Your task to perform on an android device: Search for macbook air on walmart, select the first entry, add it to the cart, then select checkout. Image 0: 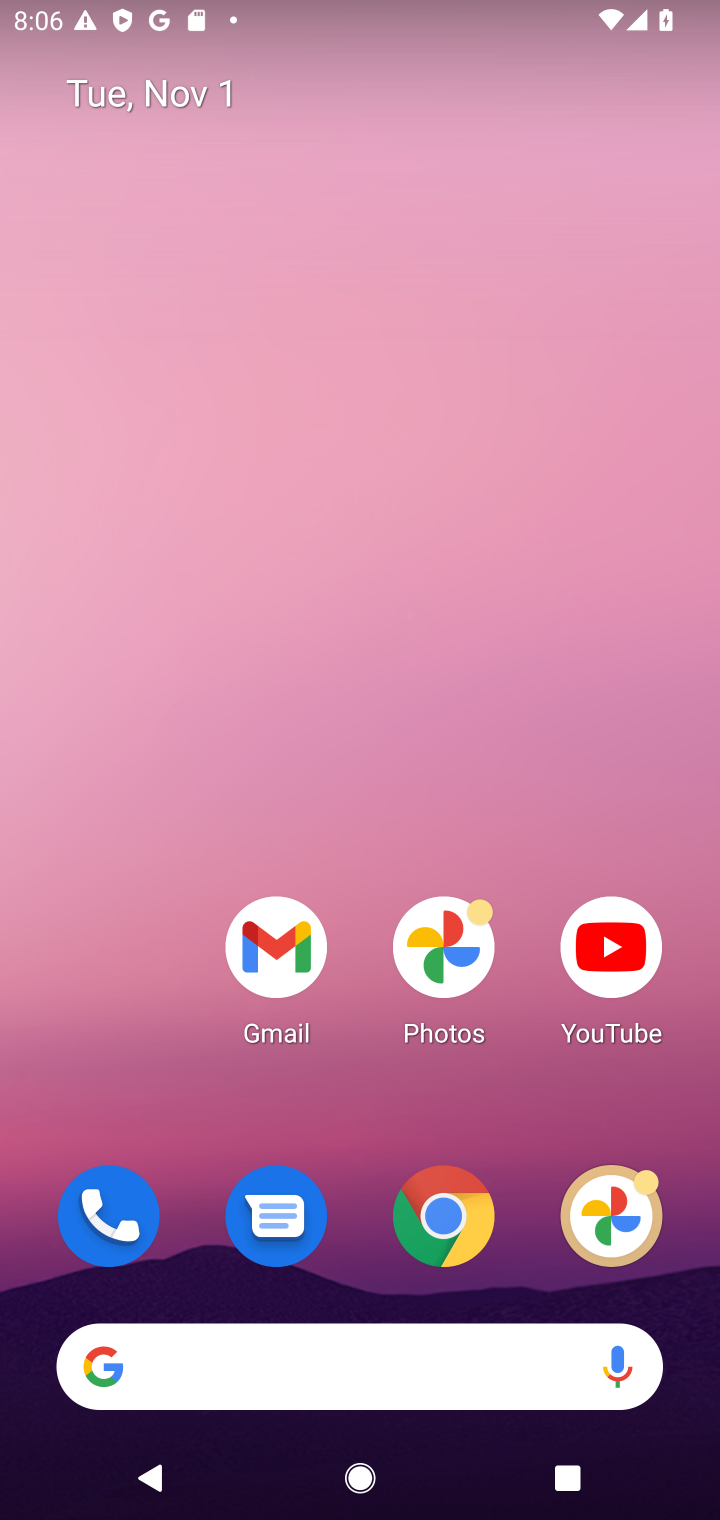
Step 0: click (455, 1210)
Your task to perform on an android device: Search for macbook air on walmart, select the first entry, add it to the cart, then select checkout. Image 1: 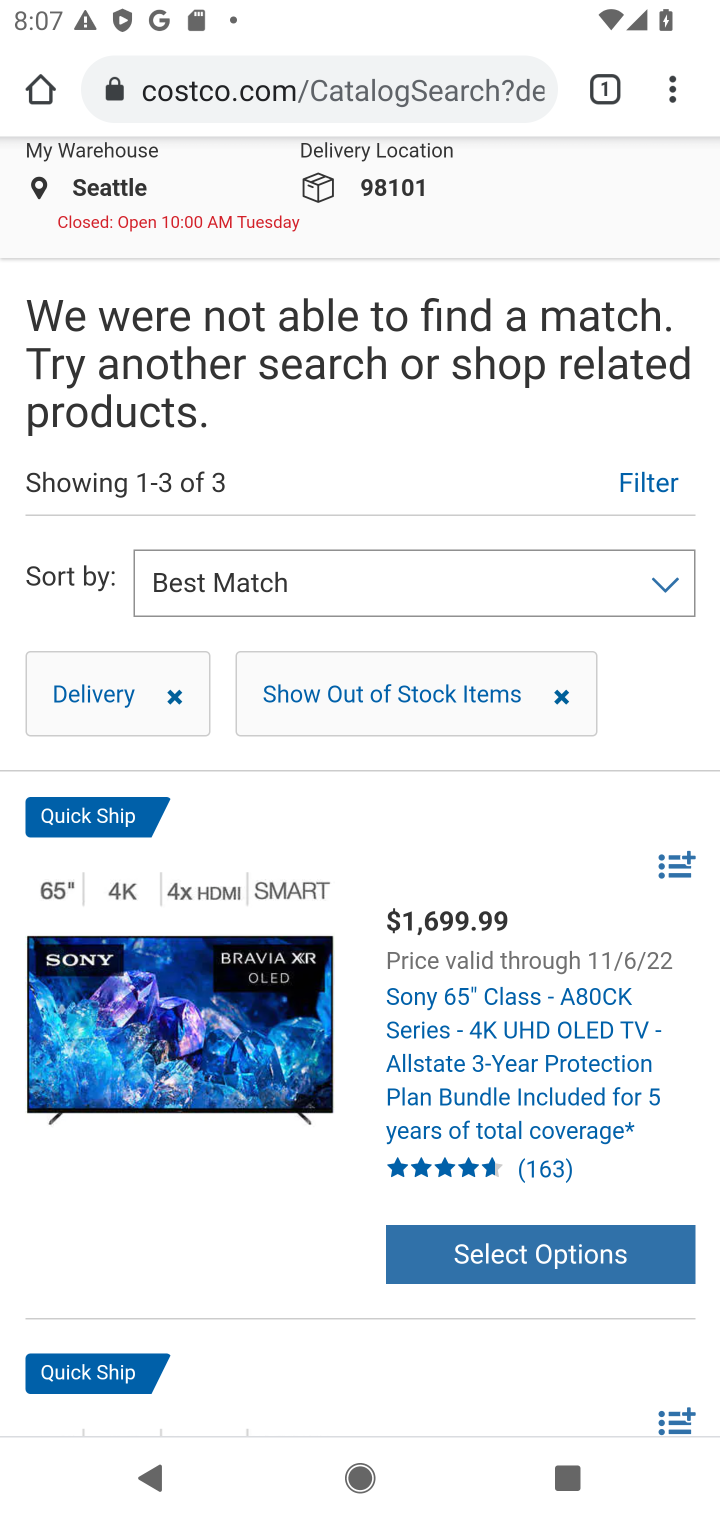
Step 1: click (420, 97)
Your task to perform on an android device: Search for macbook air on walmart, select the first entry, add it to the cart, then select checkout. Image 2: 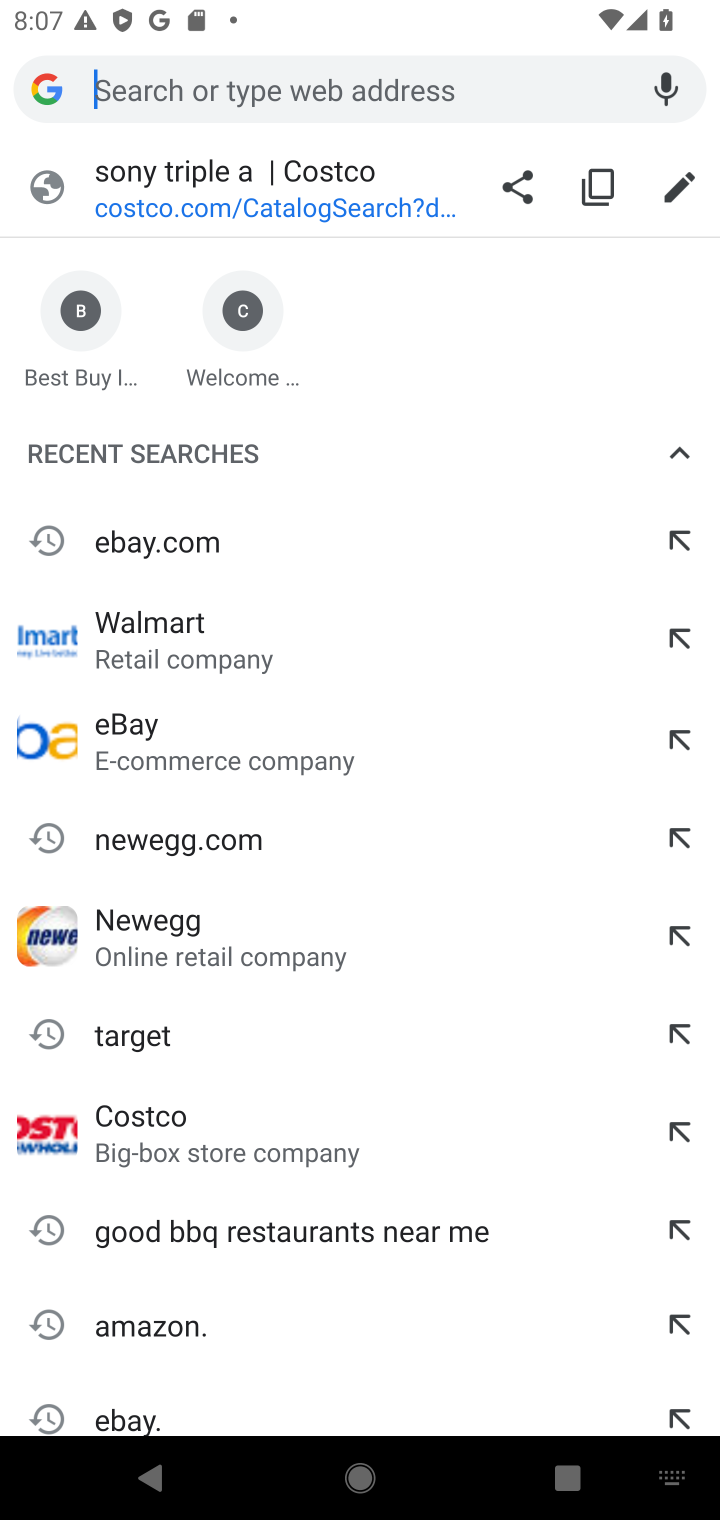
Step 2: type "walmart"
Your task to perform on an android device: Search for macbook air on walmart, select the first entry, add it to the cart, then select checkout. Image 3: 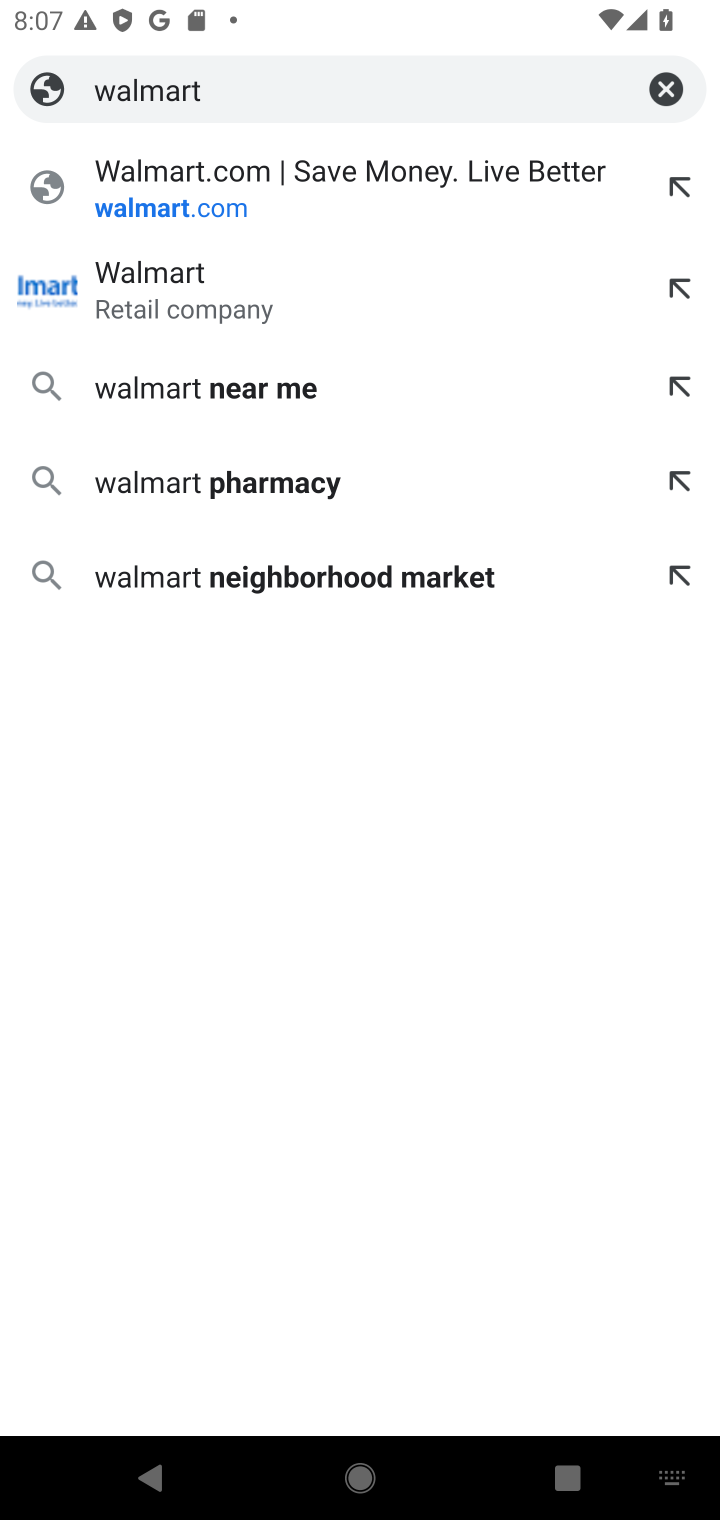
Step 3: click (220, 174)
Your task to perform on an android device: Search for macbook air on walmart, select the first entry, add it to the cart, then select checkout. Image 4: 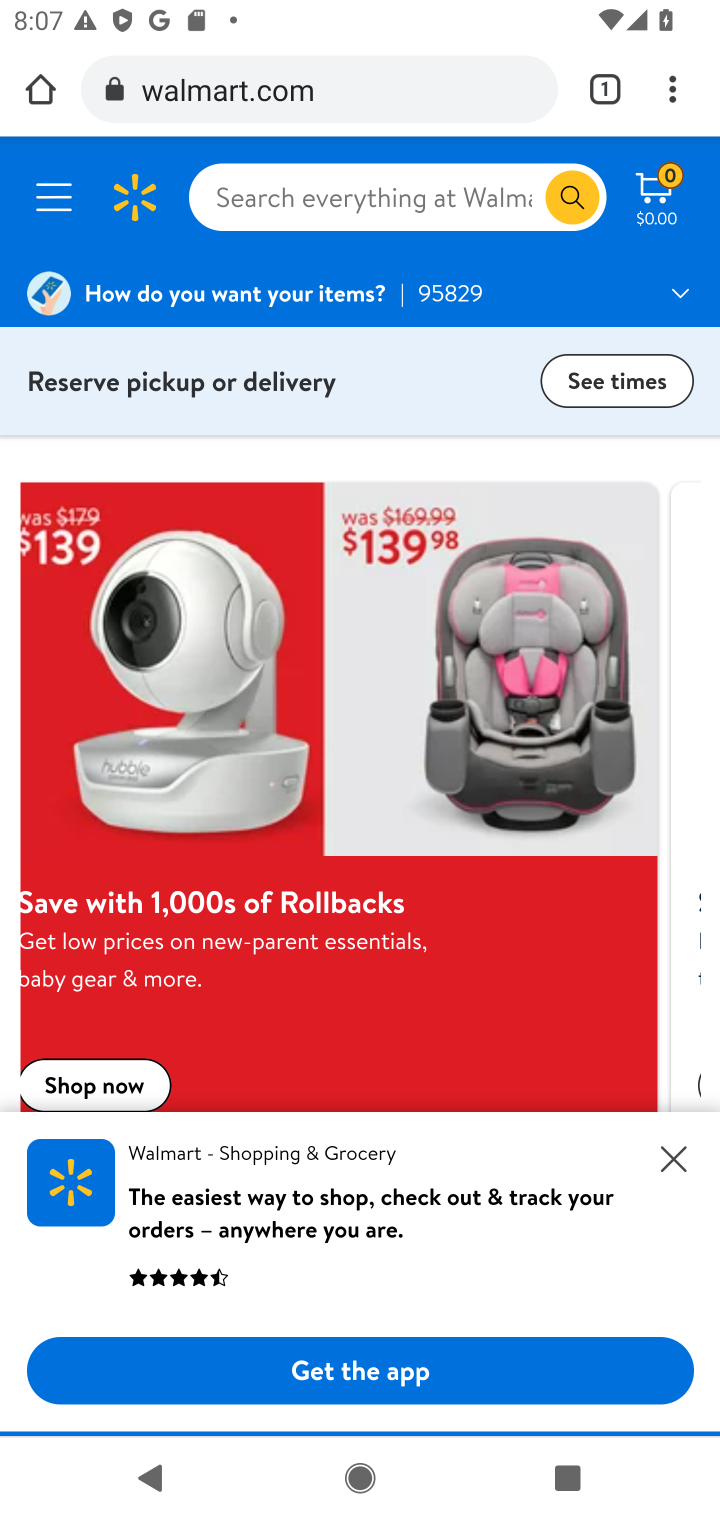
Step 4: click (354, 184)
Your task to perform on an android device: Search for macbook air on walmart, select the first entry, add it to the cart, then select checkout. Image 5: 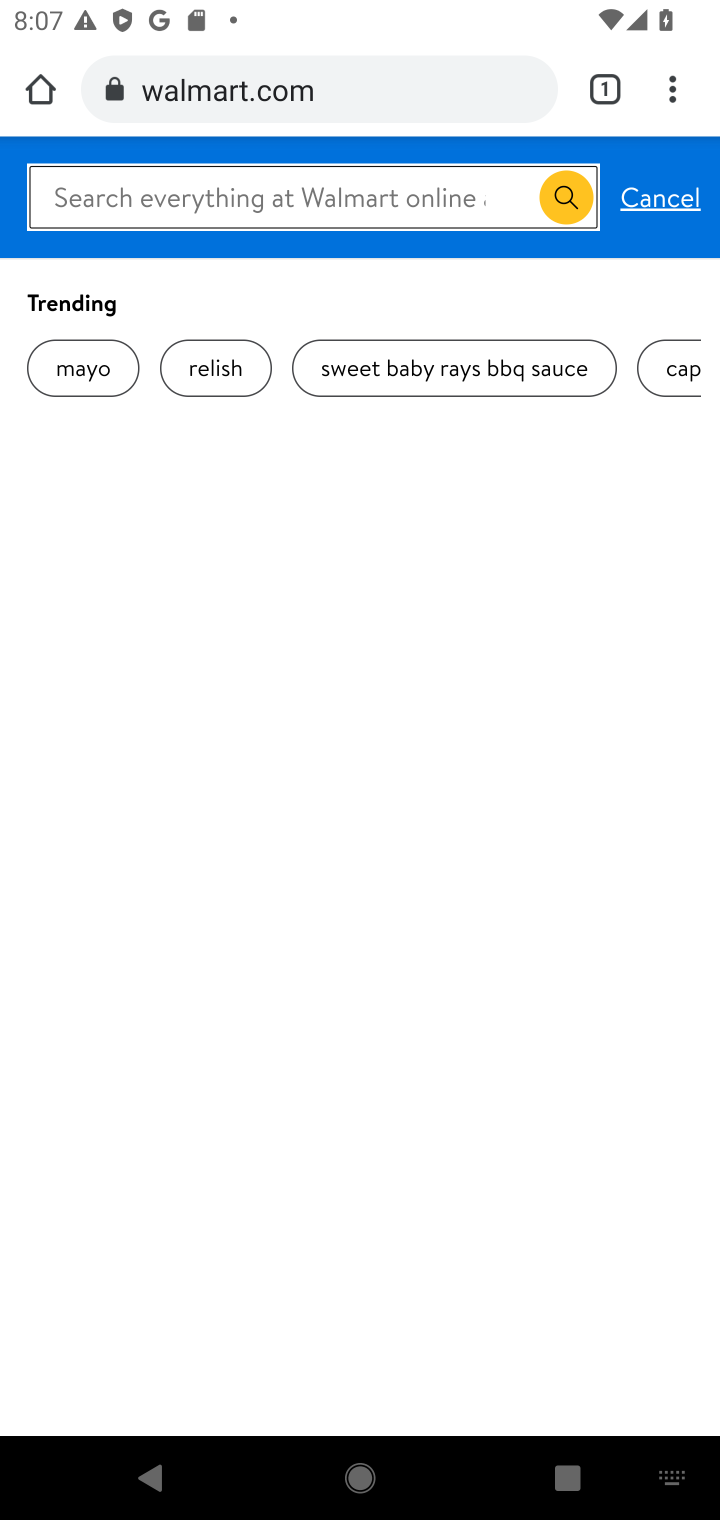
Step 5: type "macbook air"
Your task to perform on an android device: Search for macbook air on walmart, select the first entry, add it to the cart, then select checkout. Image 6: 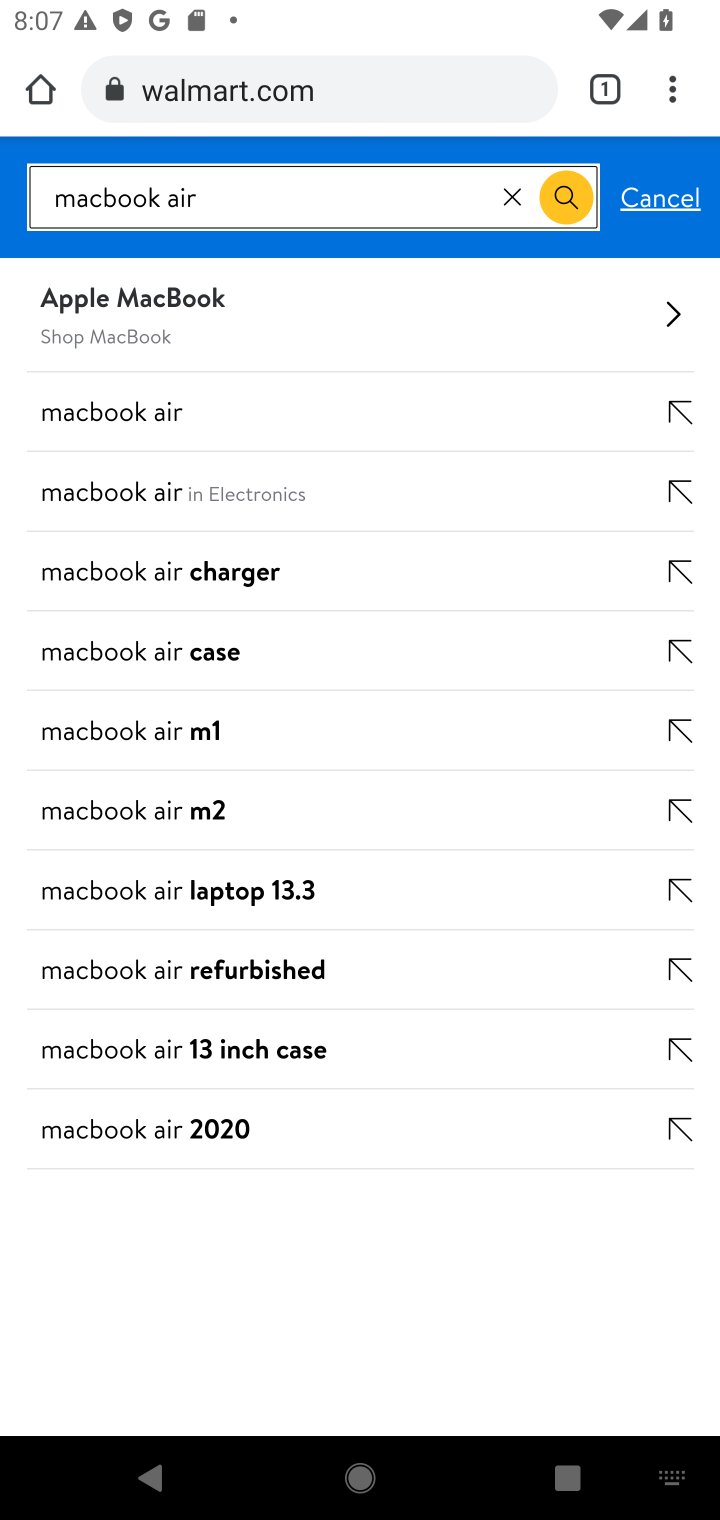
Step 6: click (569, 208)
Your task to perform on an android device: Search for macbook air on walmart, select the first entry, add it to the cart, then select checkout. Image 7: 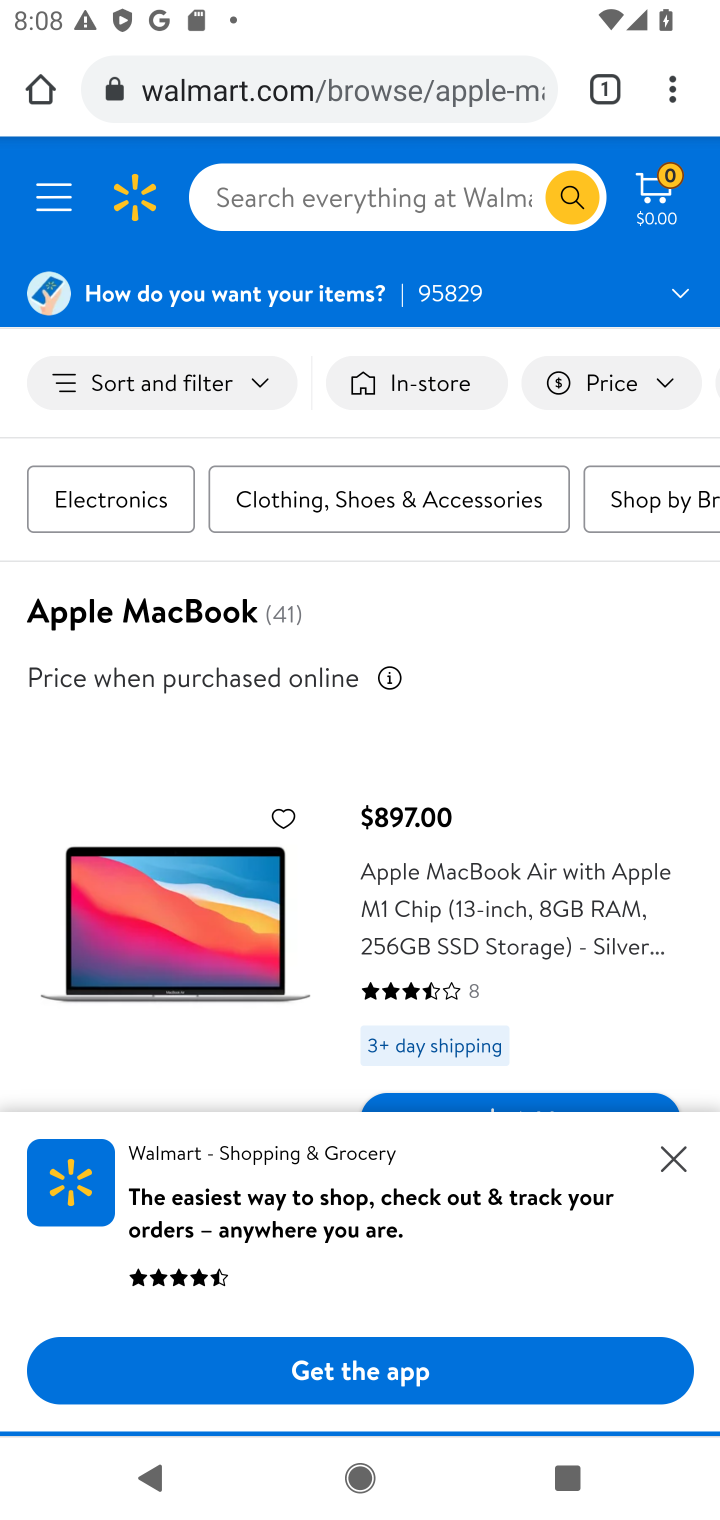
Step 7: click (374, 199)
Your task to perform on an android device: Search for macbook air on walmart, select the first entry, add it to the cart, then select checkout. Image 8: 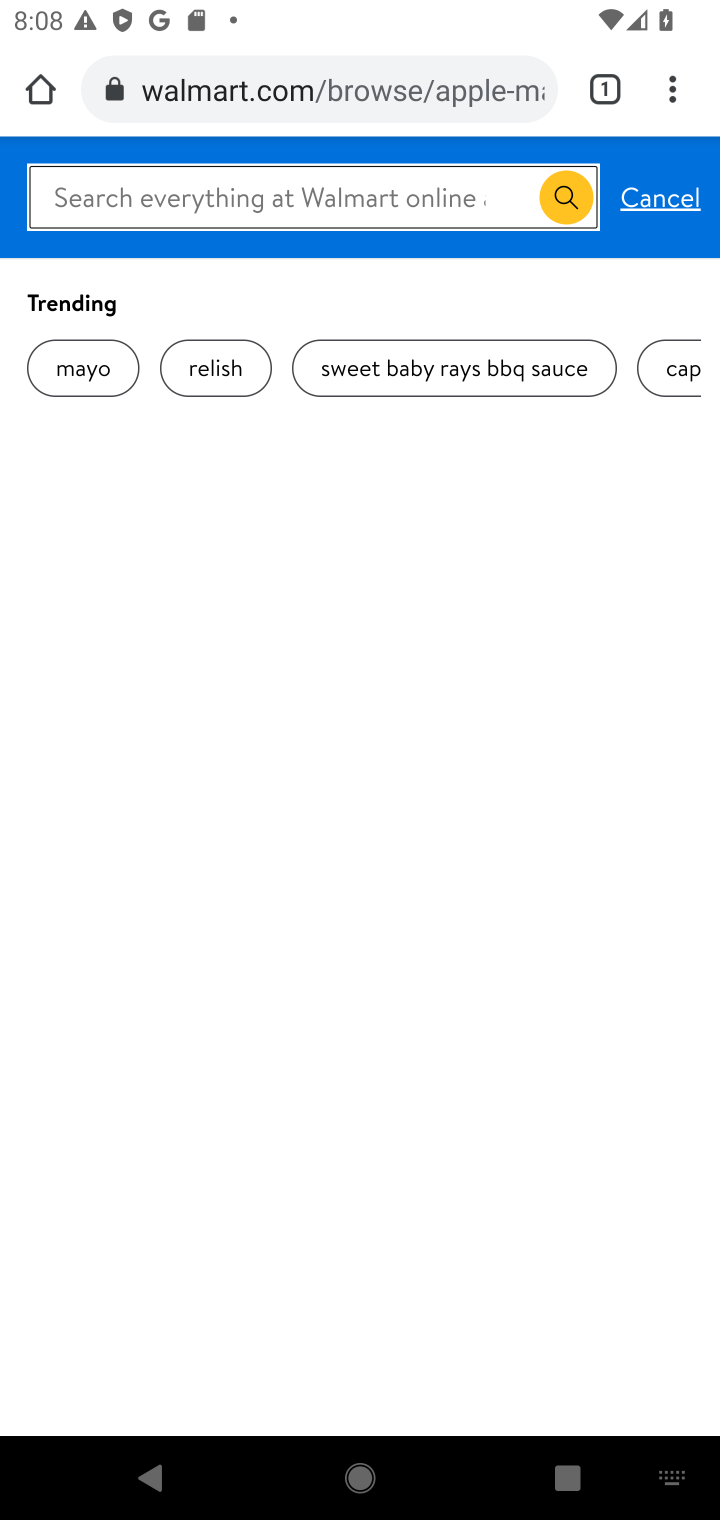
Step 8: type "macbook air"
Your task to perform on an android device: Search for macbook air on walmart, select the first entry, add it to the cart, then select checkout. Image 9: 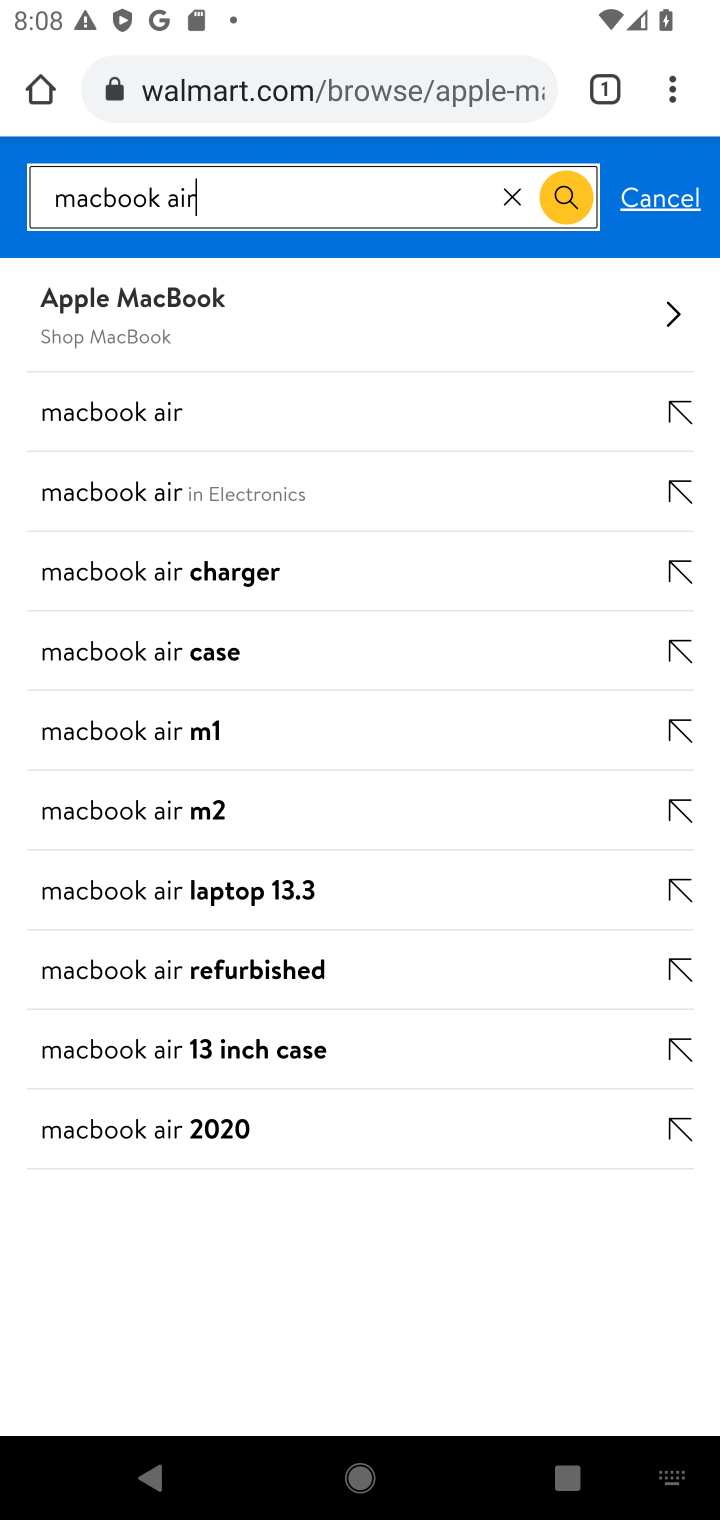
Step 9: click (562, 197)
Your task to perform on an android device: Search for macbook air on walmart, select the first entry, add it to the cart, then select checkout. Image 10: 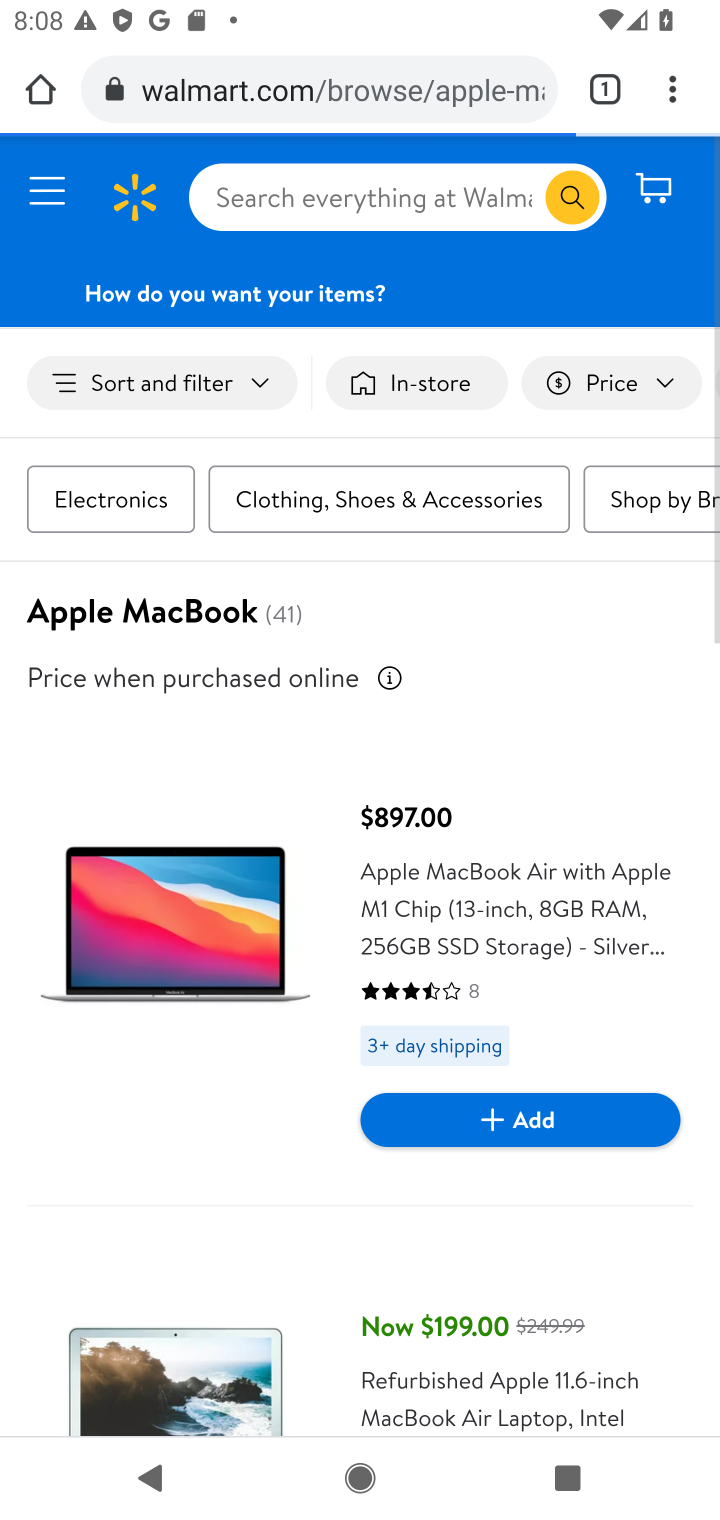
Step 10: click (679, 1158)
Your task to perform on an android device: Search for macbook air on walmart, select the first entry, add it to the cart, then select checkout. Image 11: 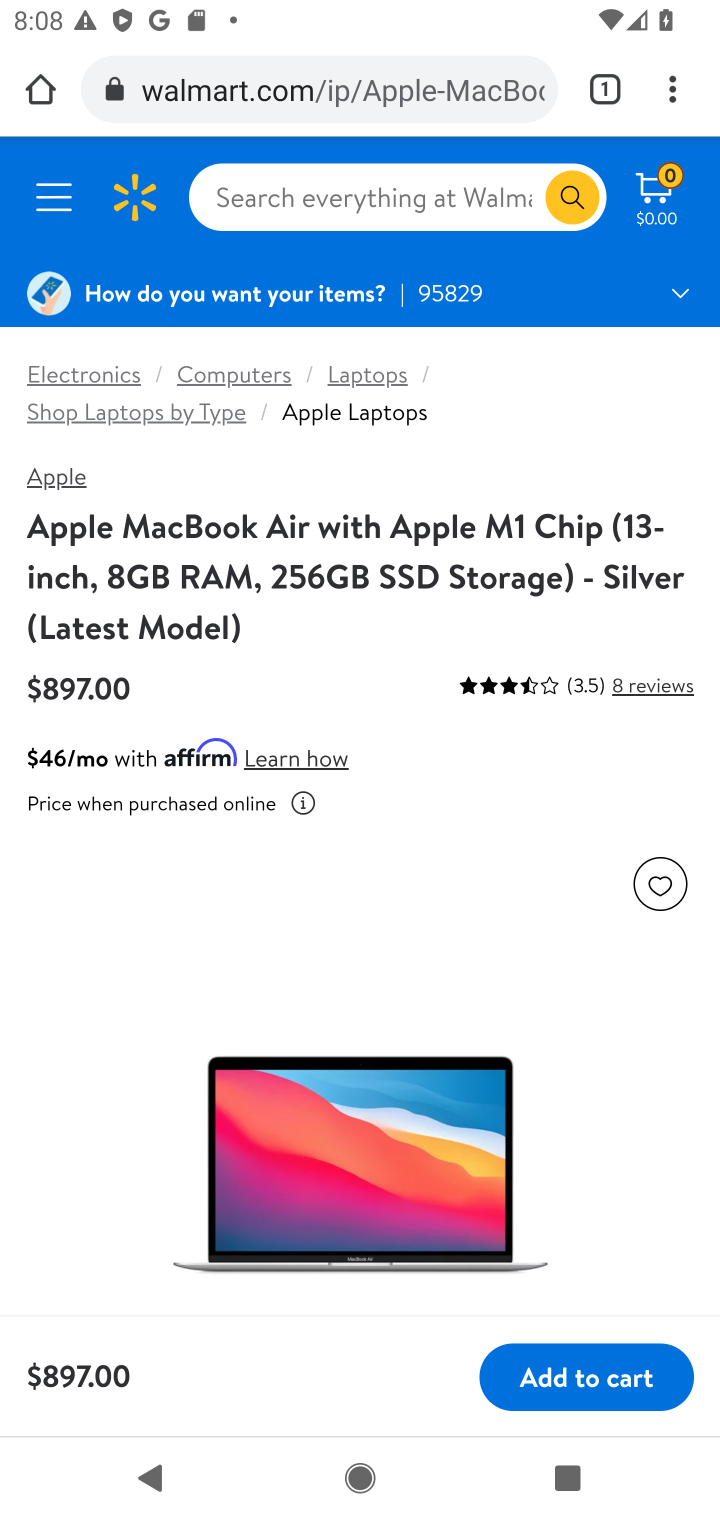
Step 11: click (549, 1373)
Your task to perform on an android device: Search for macbook air on walmart, select the first entry, add it to the cart, then select checkout. Image 12: 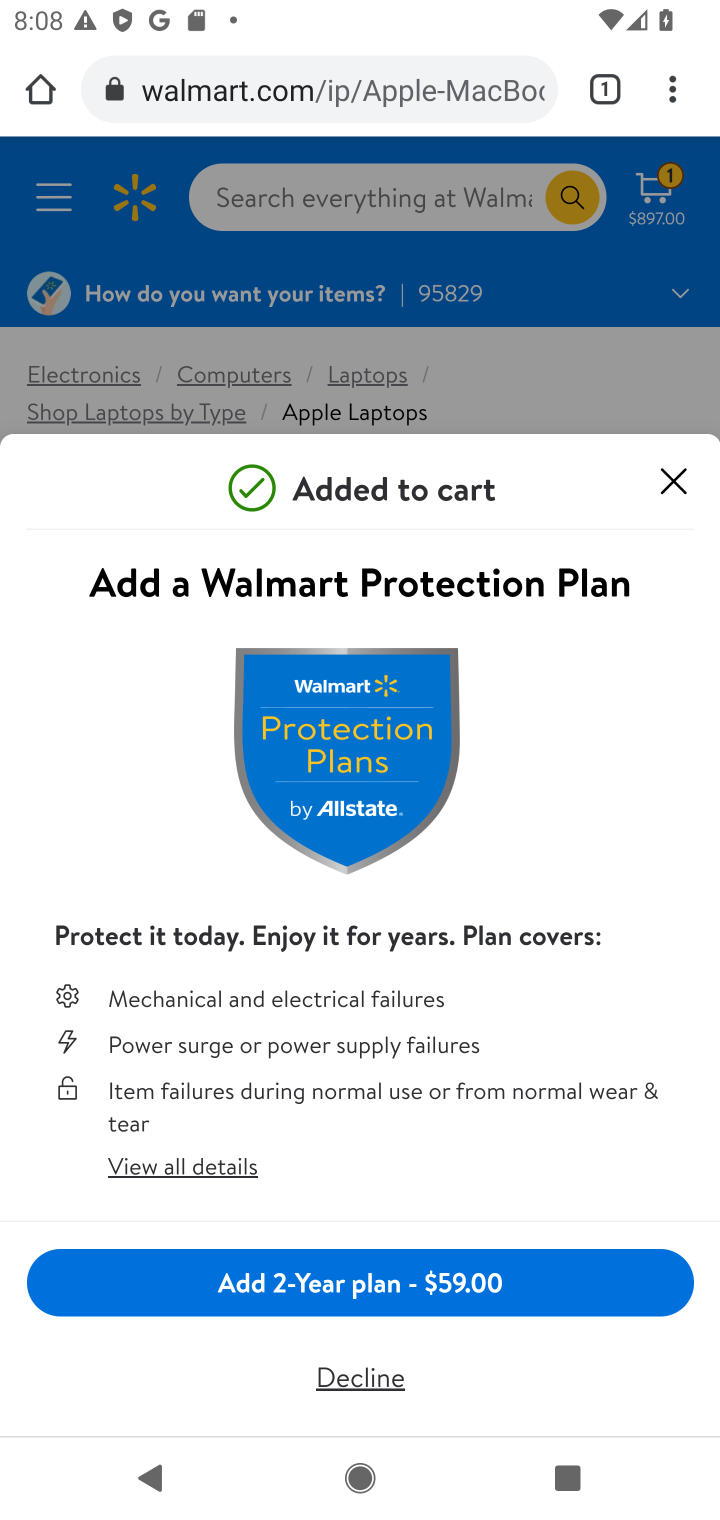
Step 12: click (371, 1385)
Your task to perform on an android device: Search for macbook air on walmart, select the first entry, add it to the cart, then select checkout. Image 13: 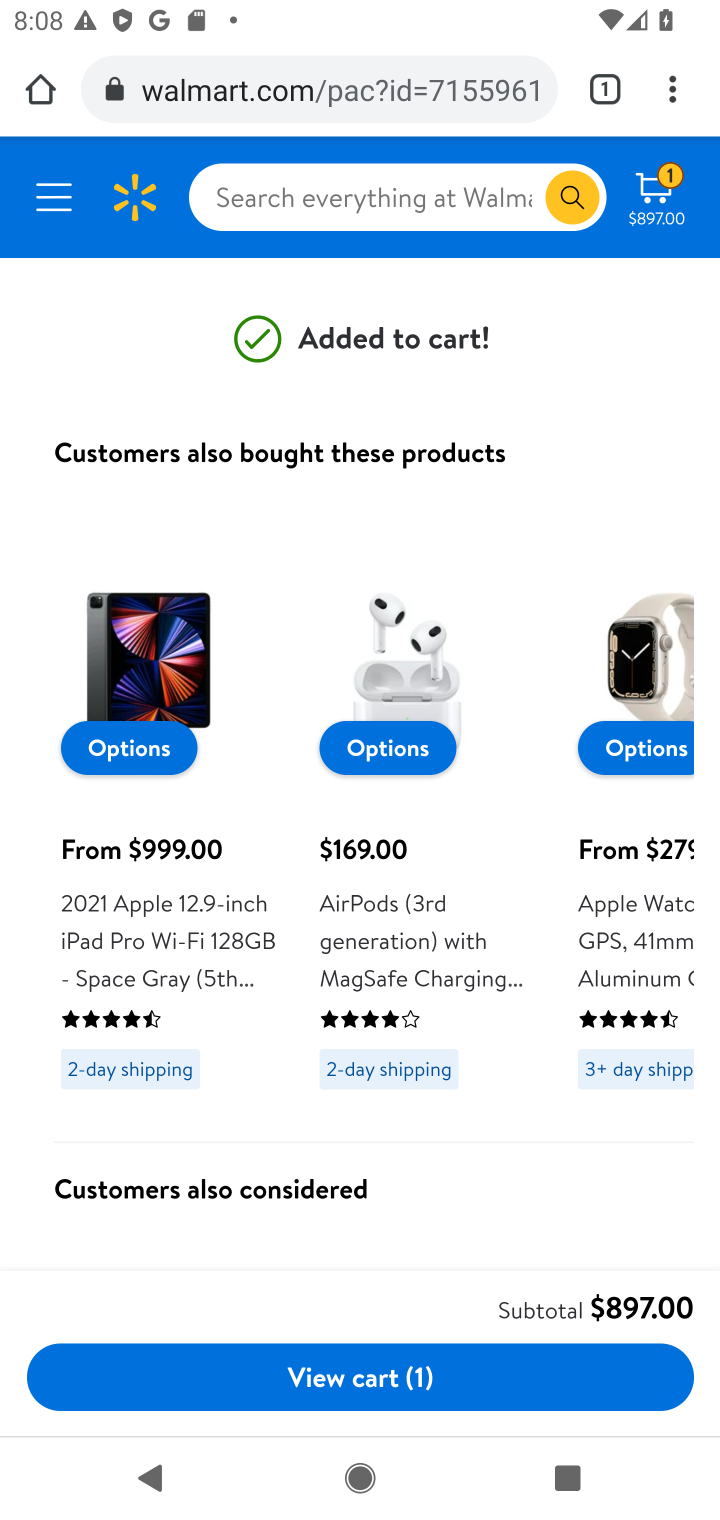
Step 13: click (361, 1370)
Your task to perform on an android device: Search for macbook air on walmart, select the first entry, add it to the cart, then select checkout. Image 14: 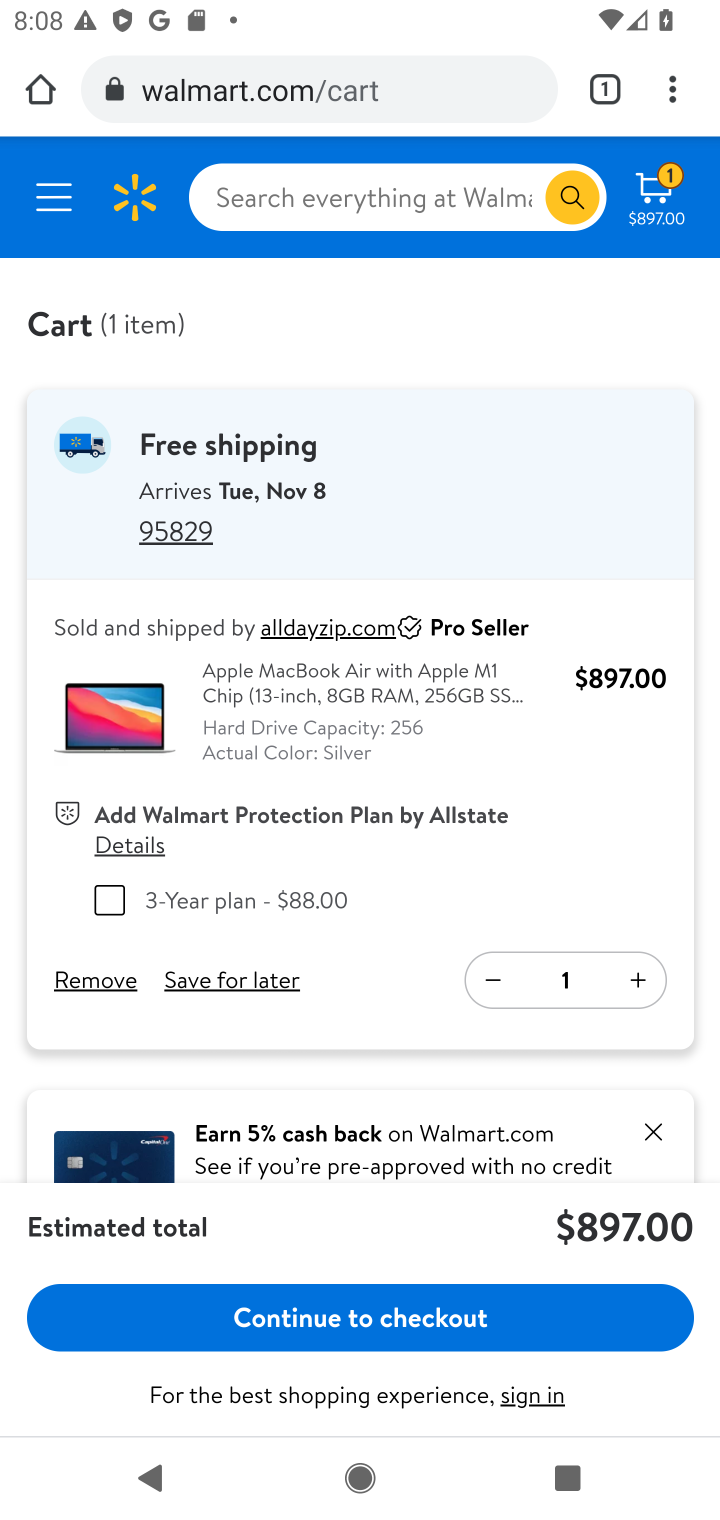
Step 14: click (411, 1316)
Your task to perform on an android device: Search for macbook air on walmart, select the first entry, add it to the cart, then select checkout. Image 15: 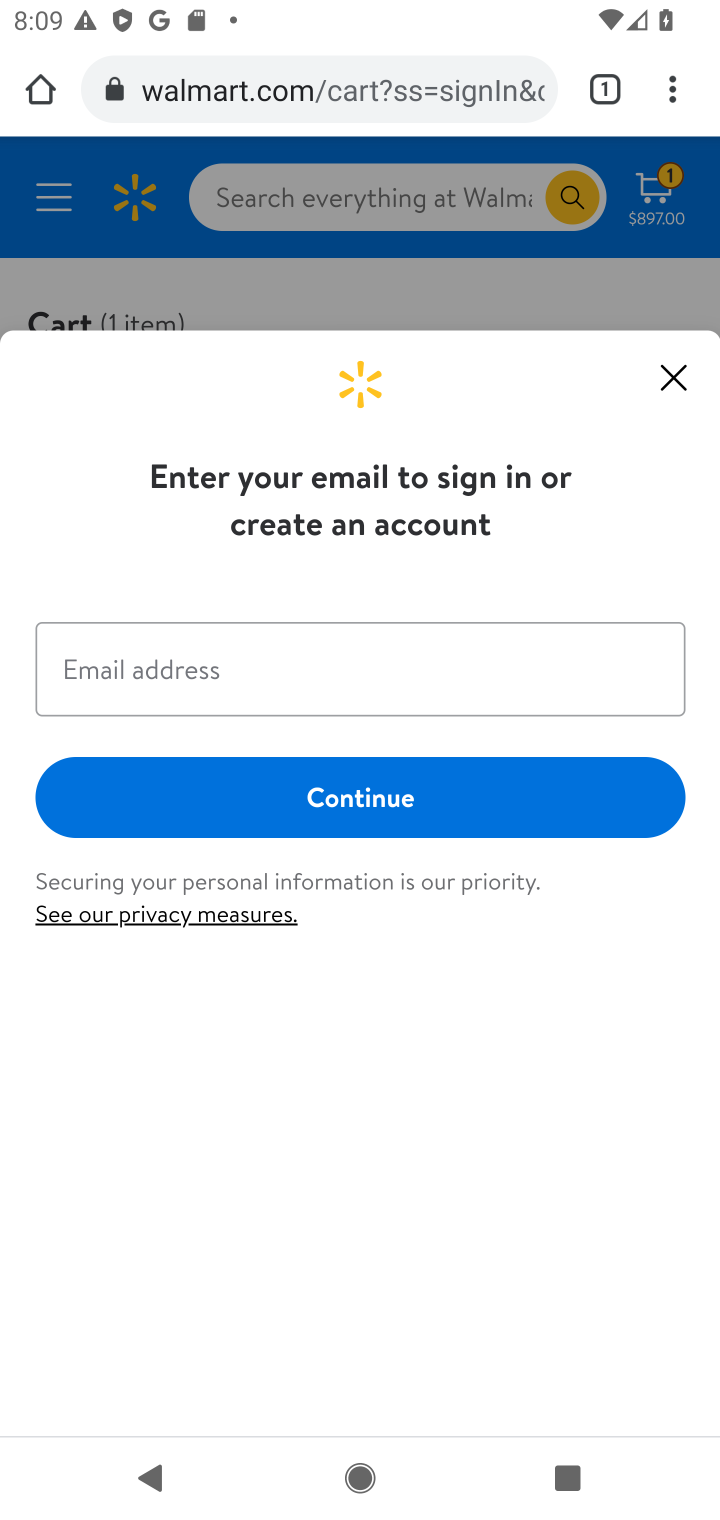
Step 15: task complete